Your task to perform on an android device: turn on javascript in the chrome app Image 0: 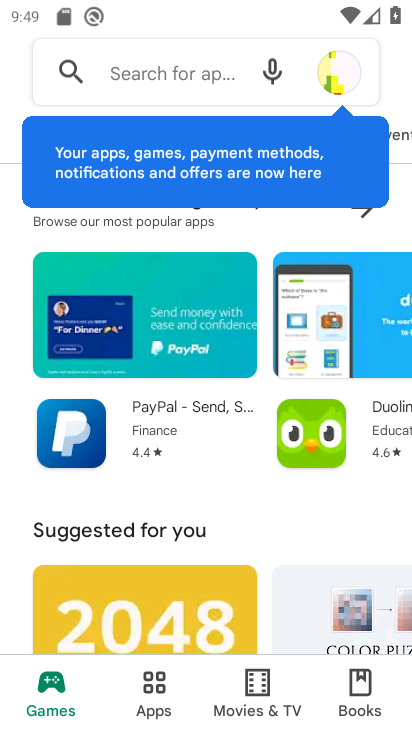
Step 0: press home button
Your task to perform on an android device: turn on javascript in the chrome app Image 1: 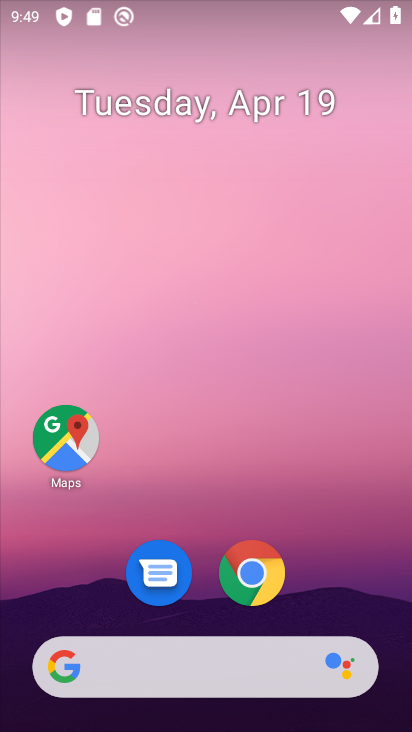
Step 1: drag from (334, 555) to (351, 90)
Your task to perform on an android device: turn on javascript in the chrome app Image 2: 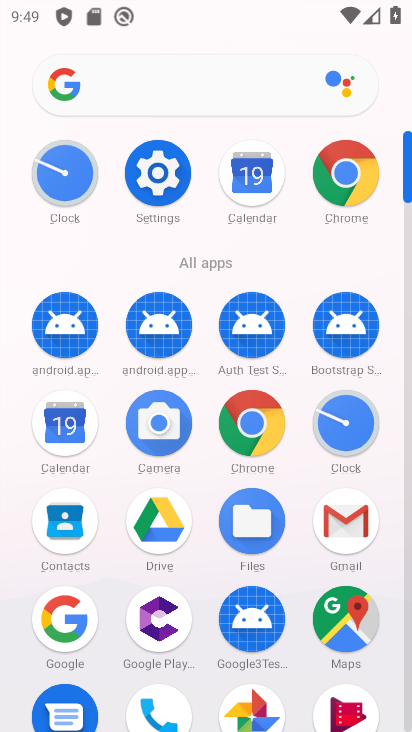
Step 2: click (357, 184)
Your task to perform on an android device: turn on javascript in the chrome app Image 3: 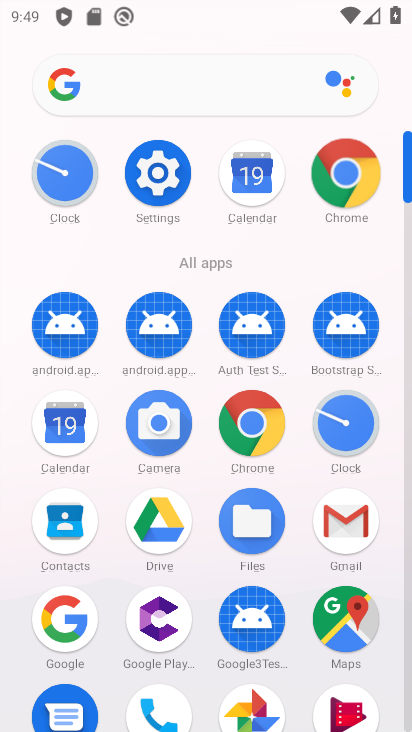
Step 3: click (357, 184)
Your task to perform on an android device: turn on javascript in the chrome app Image 4: 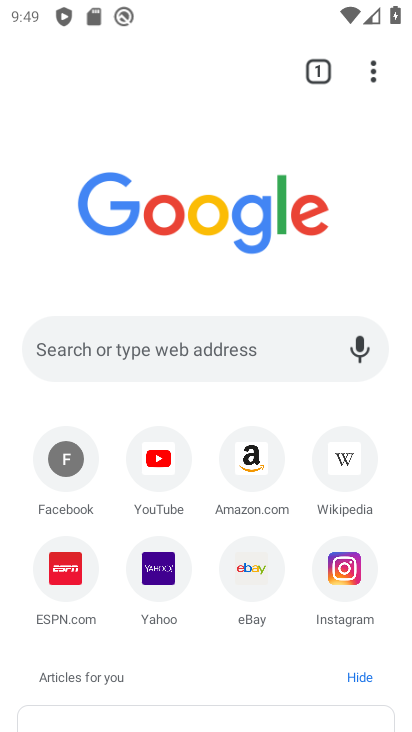
Step 4: click (372, 70)
Your task to perform on an android device: turn on javascript in the chrome app Image 5: 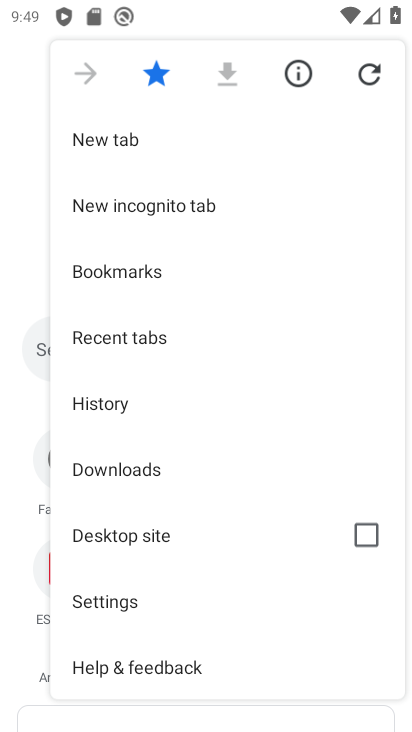
Step 5: drag from (286, 585) to (297, 337)
Your task to perform on an android device: turn on javascript in the chrome app Image 6: 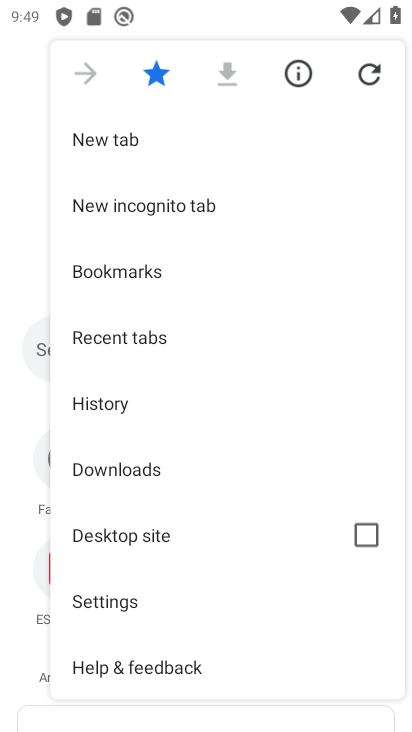
Step 6: click (134, 609)
Your task to perform on an android device: turn on javascript in the chrome app Image 7: 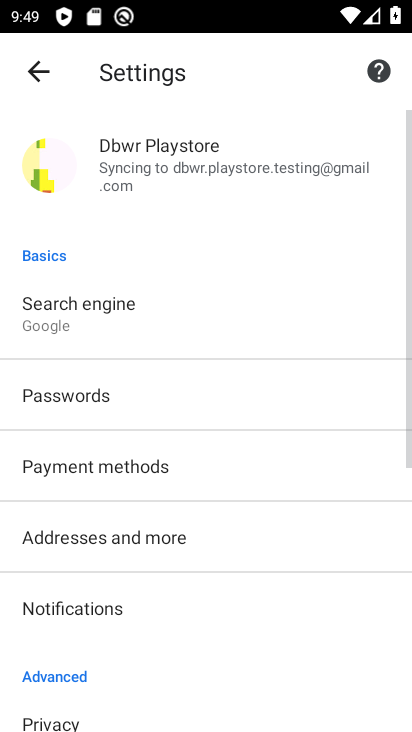
Step 7: drag from (303, 581) to (332, 312)
Your task to perform on an android device: turn on javascript in the chrome app Image 8: 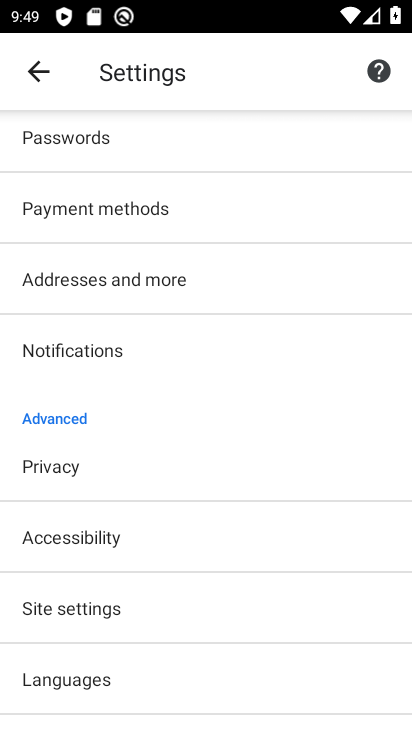
Step 8: drag from (331, 629) to (335, 342)
Your task to perform on an android device: turn on javascript in the chrome app Image 9: 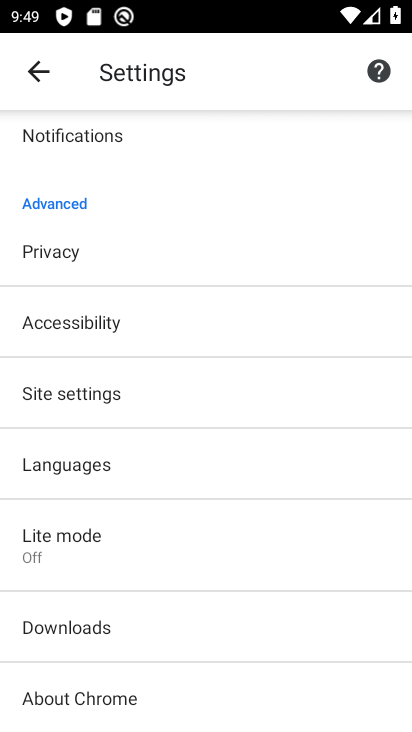
Step 9: drag from (312, 615) to (316, 353)
Your task to perform on an android device: turn on javascript in the chrome app Image 10: 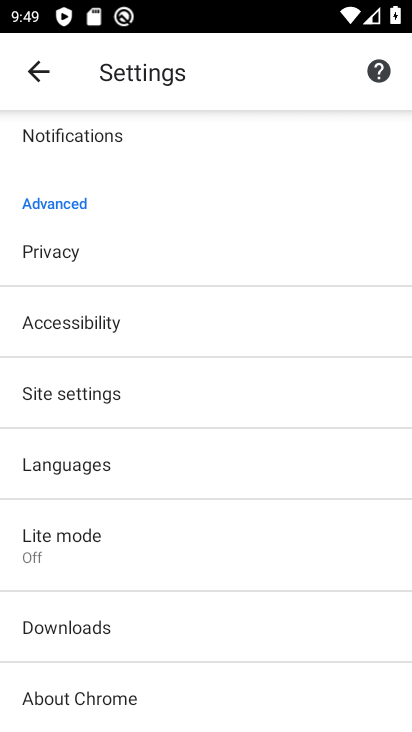
Step 10: click (188, 395)
Your task to perform on an android device: turn on javascript in the chrome app Image 11: 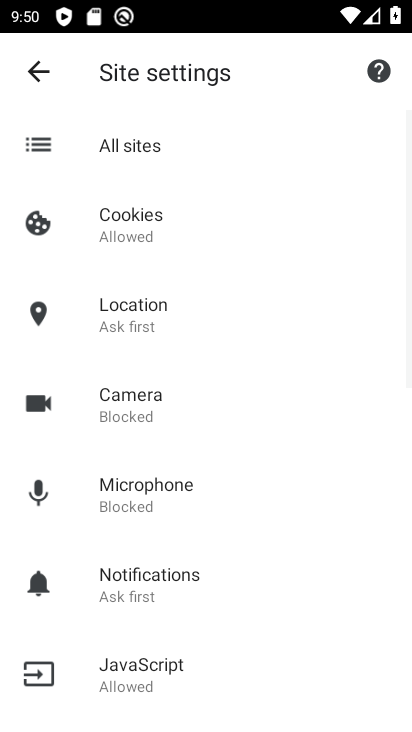
Step 11: drag from (333, 591) to (338, 339)
Your task to perform on an android device: turn on javascript in the chrome app Image 12: 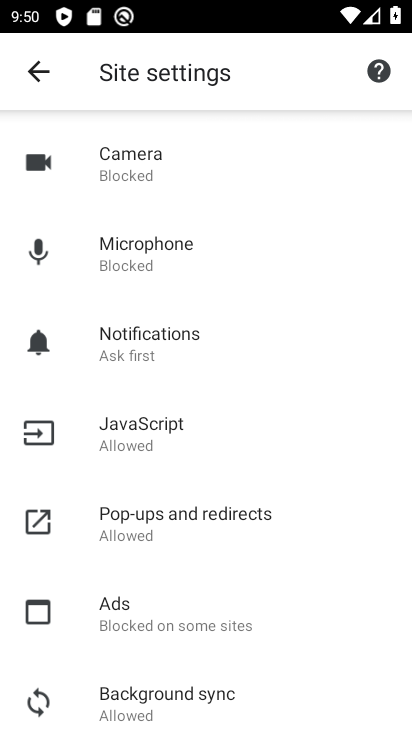
Step 12: drag from (331, 595) to (353, 351)
Your task to perform on an android device: turn on javascript in the chrome app Image 13: 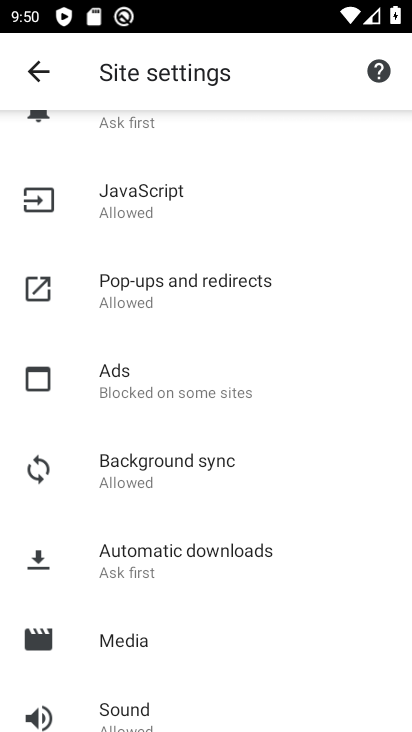
Step 13: drag from (351, 583) to (368, 340)
Your task to perform on an android device: turn on javascript in the chrome app Image 14: 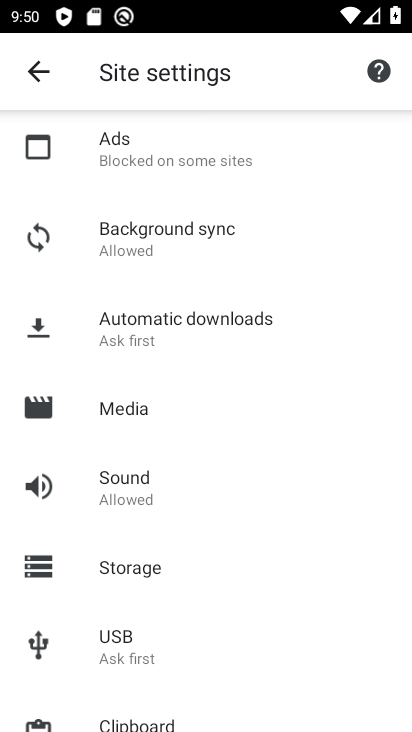
Step 14: drag from (336, 592) to (339, 319)
Your task to perform on an android device: turn on javascript in the chrome app Image 15: 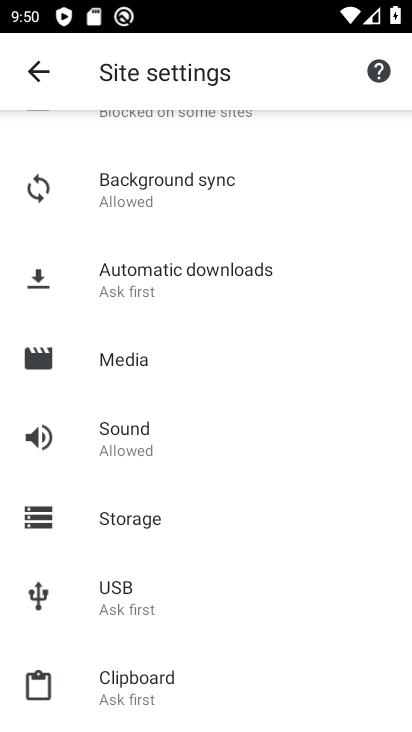
Step 15: drag from (354, 264) to (332, 522)
Your task to perform on an android device: turn on javascript in the chrome app Image 16: 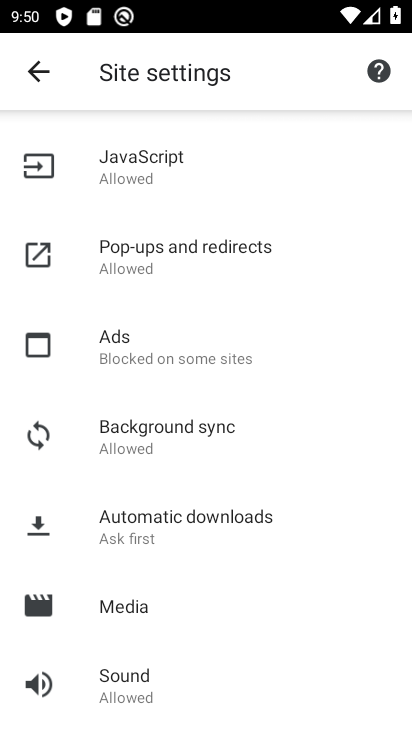
Step 16: drag from (332, 360) to (332, 507)
Your task to perform on an android device: turn on javascript in the chrome app Image 17: 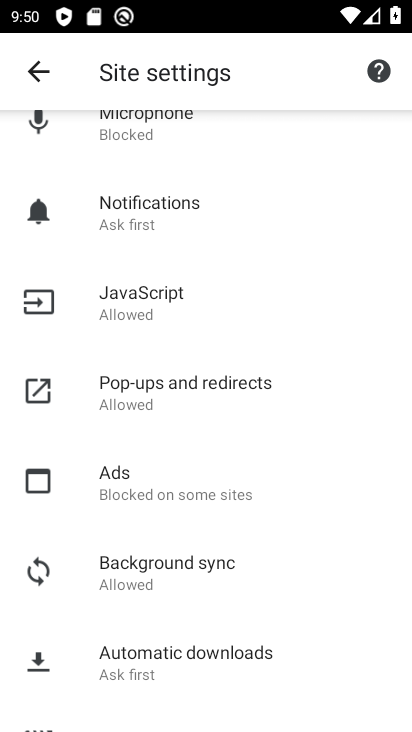
Step 17: click (130, 309)
Your task to perform on an android device: turn on javascript in the chrome app Image 18: 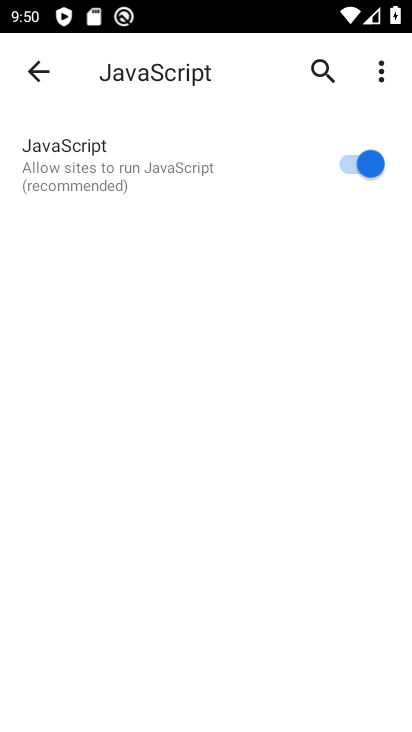
Step 18: task complete